Your task to perform on an android device: Open the phone app and click the voicemail tab. Image 0: 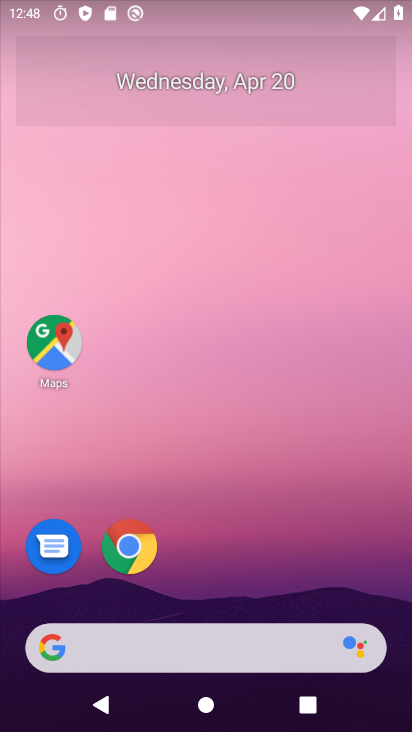
Step 0: drag from (210, 714) to (196, 196)
Your task to perform on an android device: Open the phone app and click the voicemail tab. Image 1: 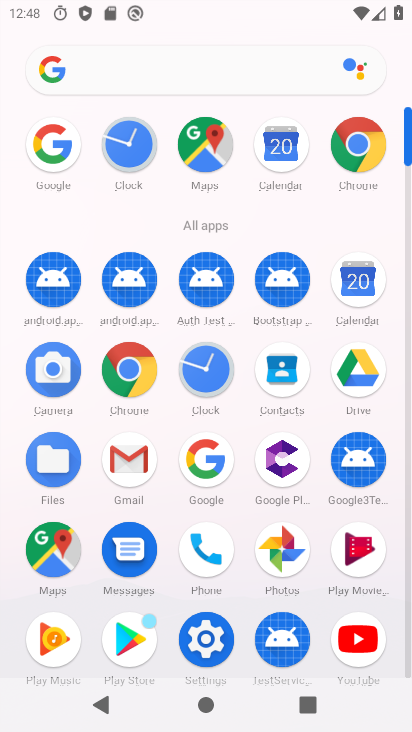
Step 1: click (202, 551)
Your task to perform on an android device: Open the phone app and click the voicemail tab. Image 2: 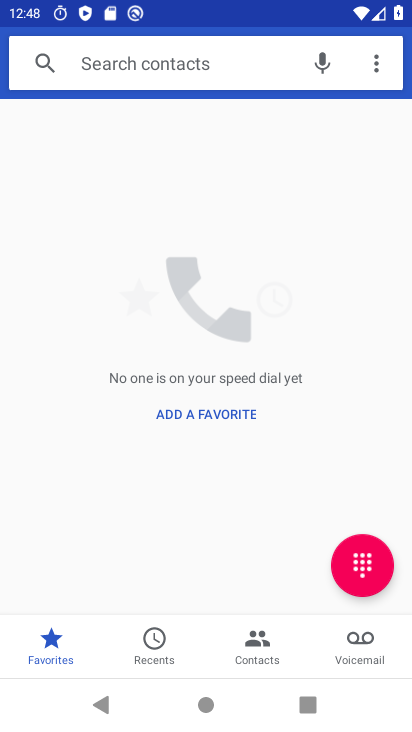
Step 2: click (364, 643)
Your task to perform on an android device: Open the phone app and click the voicemail tab. Image 3: 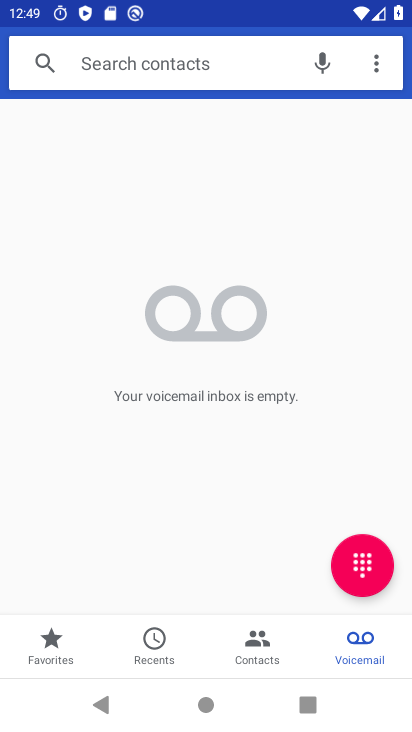
Step 3: task complete